Your task to perform on an android device: turn on wifi Image 0: 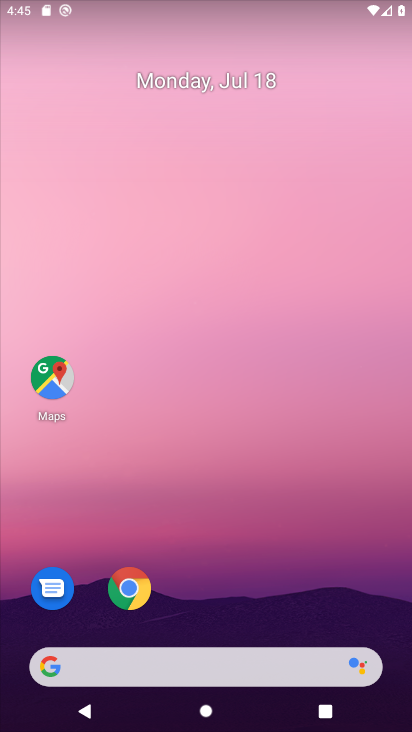
Step 0: drag from (255, 688) to (140, 40)
Your task to perform on an android device: turn on wifi Image 1: 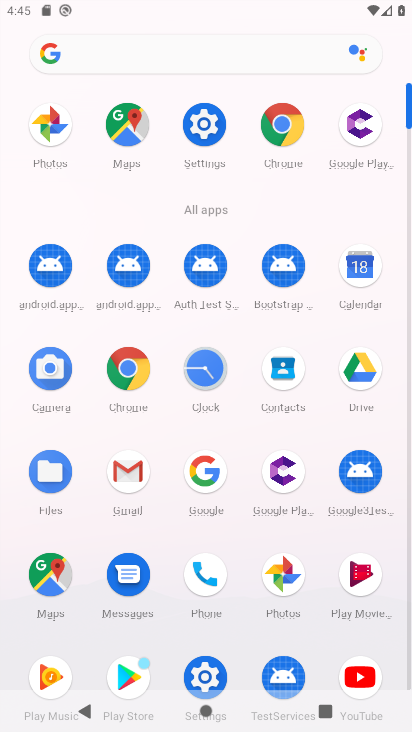
Step 1: click (217, 119)
Your task to perform on an android device: turn on wifi Image 2: 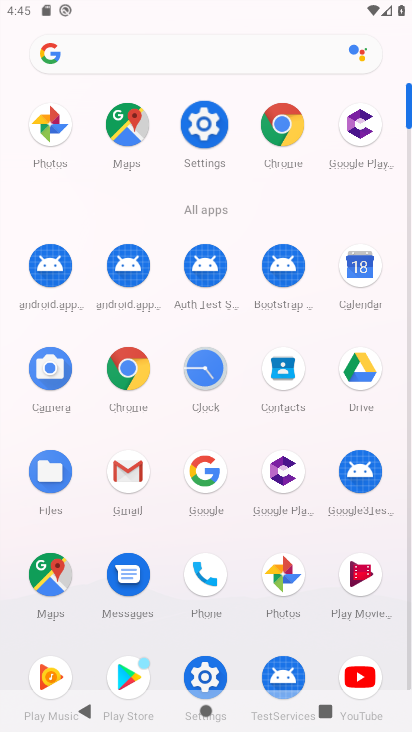
Step 2: click (211, 124)
Your task to perform on an android device: turn on wifi Image 3: 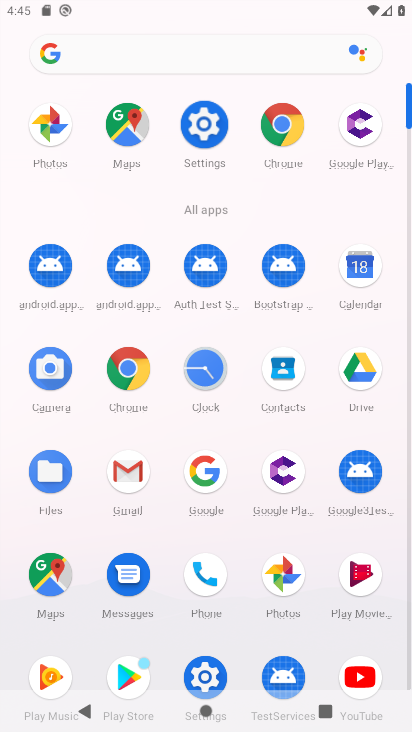
Step 3: click (211, 124)
Your task to perform on an android device: turn on wifi Image 4: 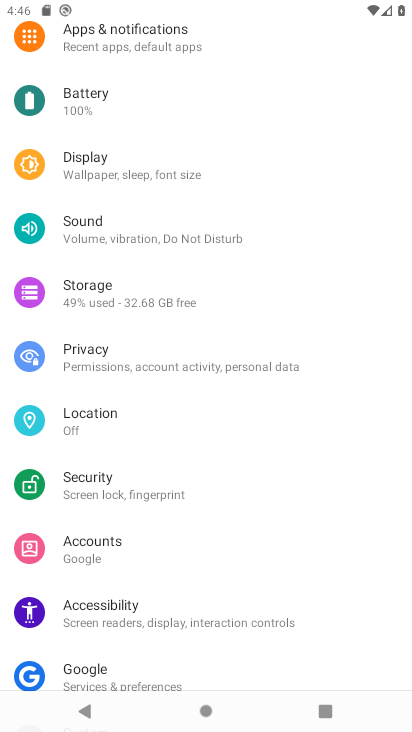
Step 4: drag from (113, 442) to (133, 599)
Your task to perform on an android device: turn on wifi Image 5: 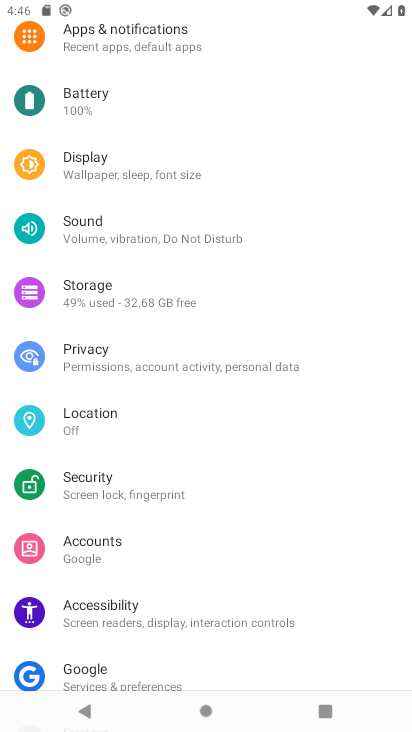
Step 5: drag from (89, 416) to (113, 491)
Your task to perform on an android device: turn on wifi Image 6: 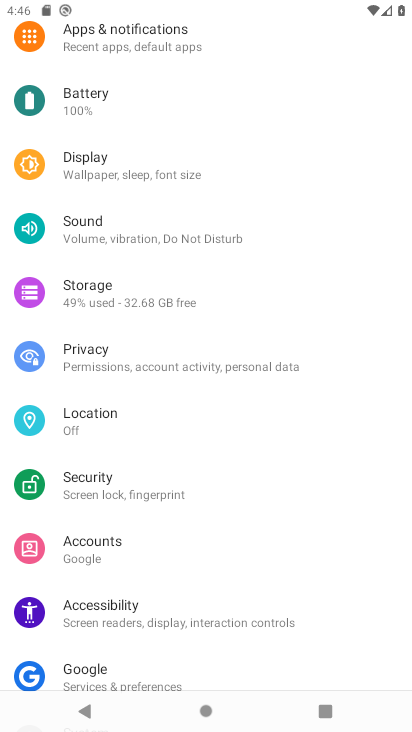
Step 6: drag from (175, 149) to (189, 471)
Your task to perform on an android device: turn on wifi Image 7: 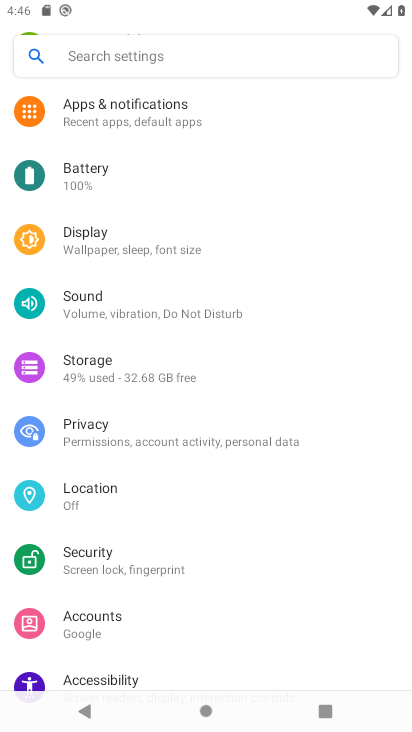
Step 7: click (116, 119)
Your task to perform on an android device: turn on wifi Image 8: 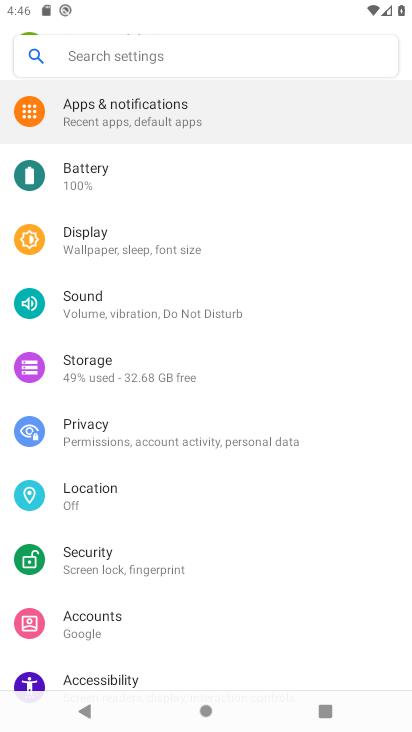
Step 8: click (120, 101)
Your task to perform on an android device: turn on wifi Image 9: 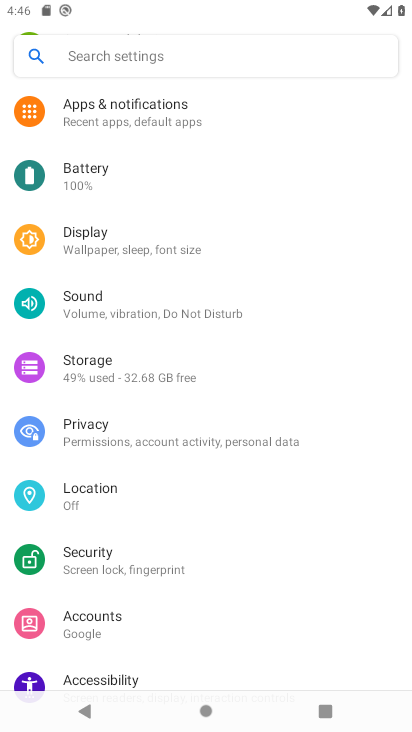
Step 9: click (128, 111)
Your task to perform on an android device: turn on wifi Image 10: 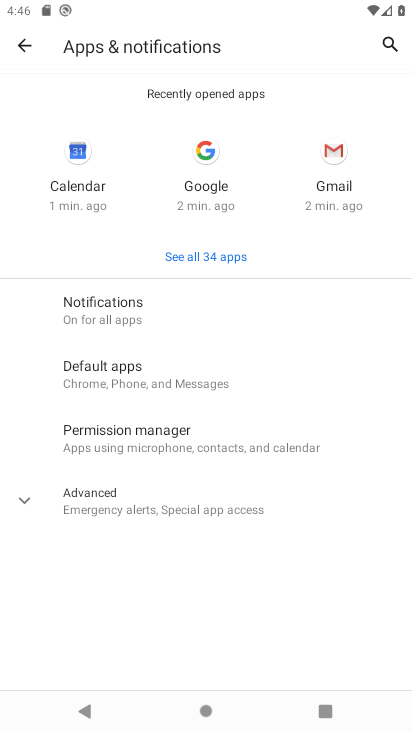
Step 10: click (16, 38)
Your task to perform on an android device: turn on wifi Image 11: 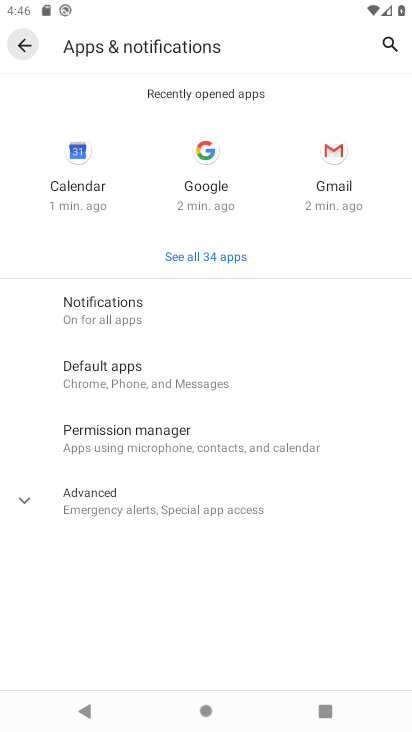
Step 11: click (22, 37)
Your task to perform on an android device: turn on wifi Image 12: 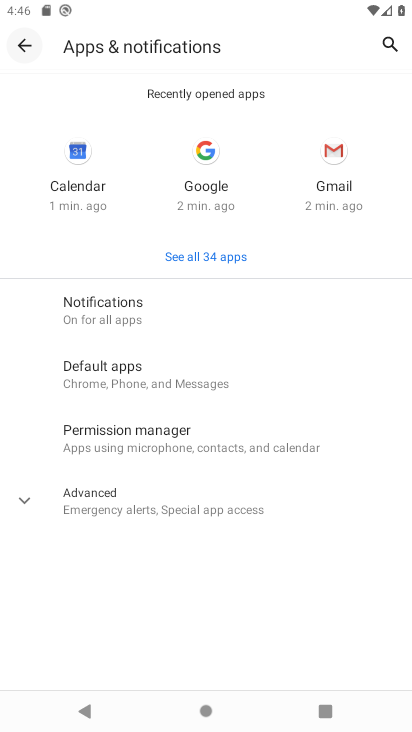
Step 12: click (22, 37)
Your task to perform on an android device: turn on wifi Image 13: 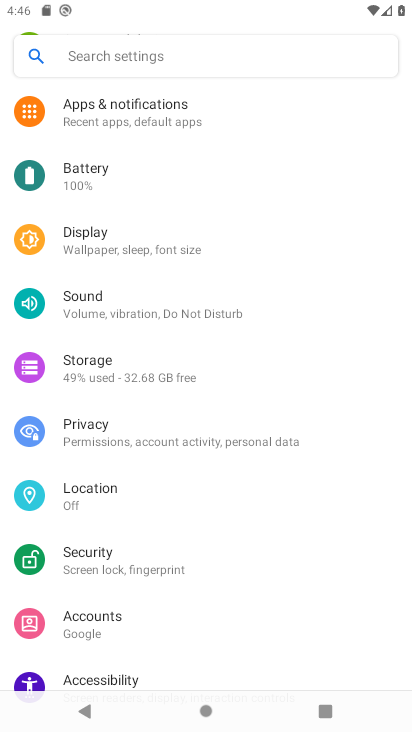
Step 13: drag from (103, 153) to (103, 356)
Your task to perform on an android device: turn on wifi Image 14: 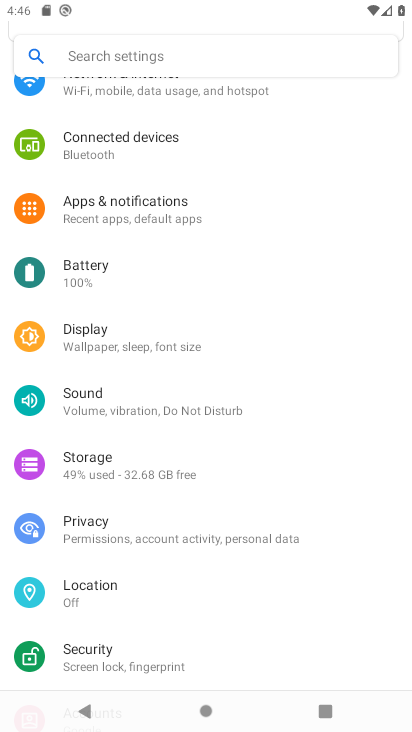
Step 14: drag from (71, 169) to (114, 457)
Your task to perform on an android device: turn on wifi Image 15: 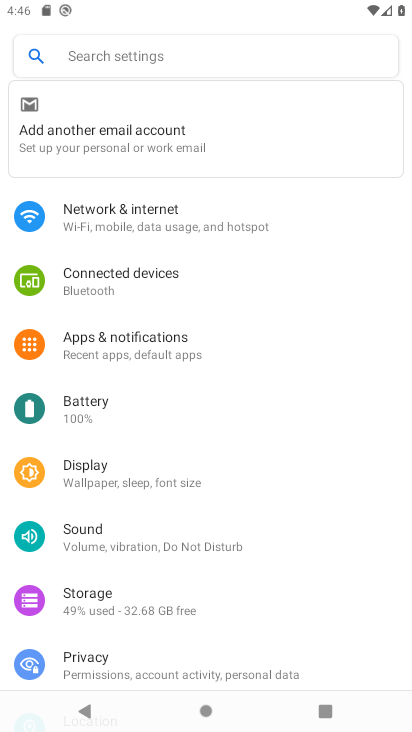
Step 15: click (115, 215)
Your task to perform on an android device: turn on wifi Image 16: 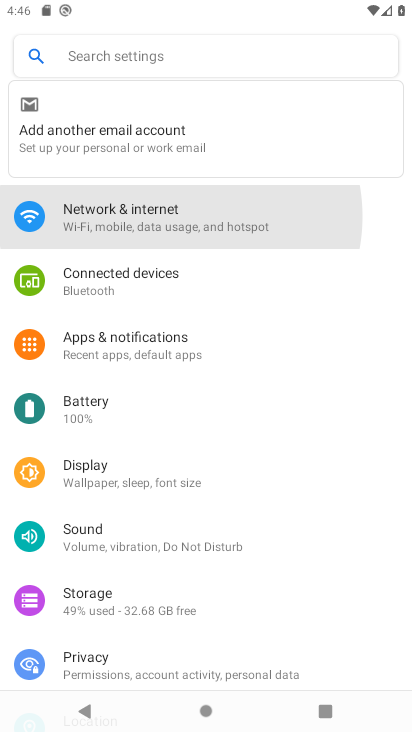
Step 16: click (118, 215)
Your task to perform on an android device: turn on wifi Image 17: 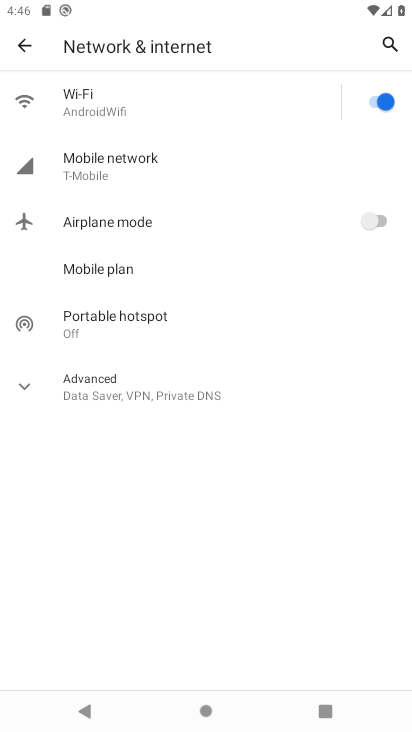
Step 17: task complete